Your task to perform on an android device: toggle sleep mode Image 0: 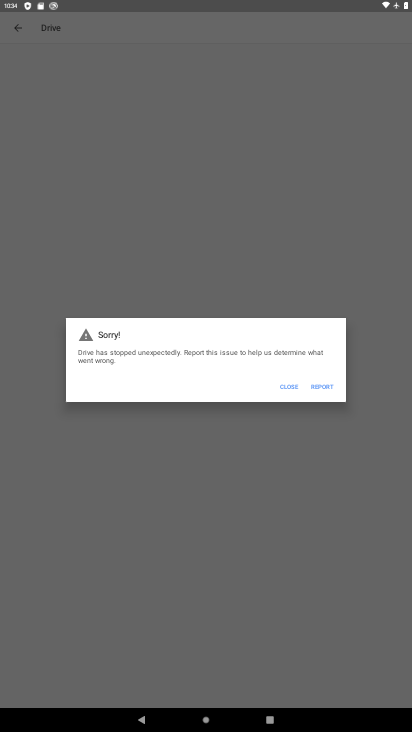
Step 0: press back button
Your task to perform on an android device: toggle sleep mode Image 1: 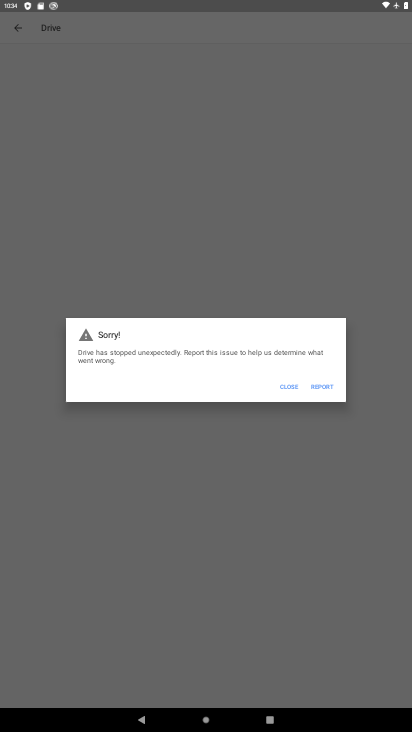
Step 1: press home button
Your task to perform on an android device: toggle sleep mode Image 2: 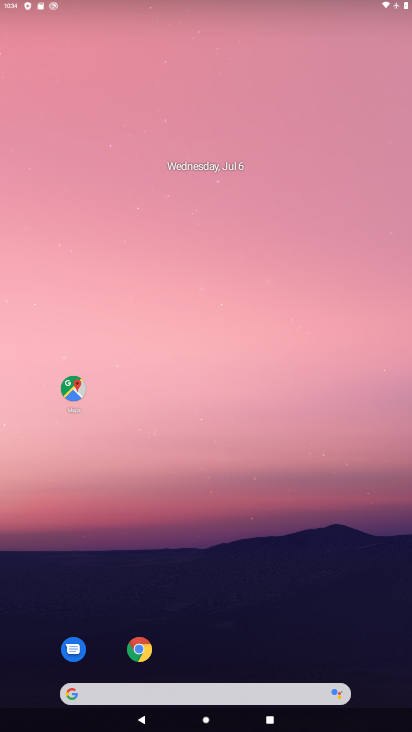
Step 2: drag from (384, 713) to (254, 45)
Your task to perform on an android device: toggle sleep mode Image 3: 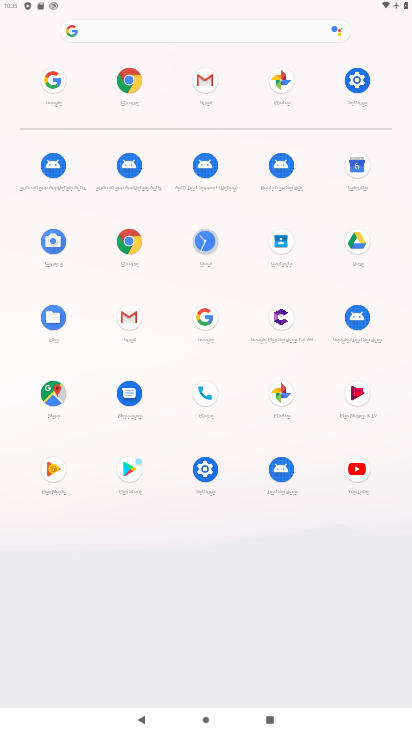
Step 3: click (349, 78)
Your task to perform on an android device: toggle sleep mode Image 4: 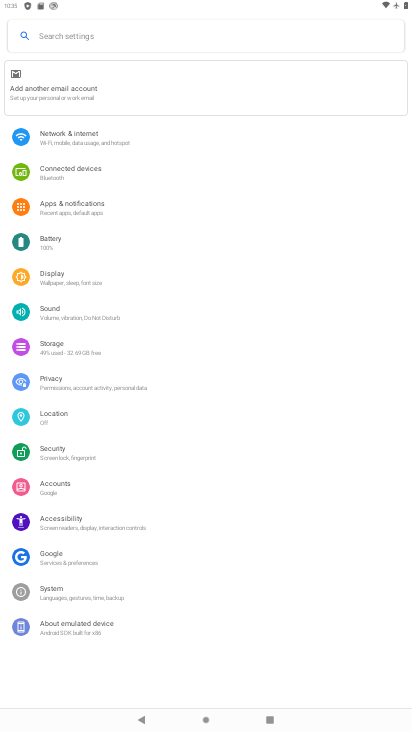
Step 4: click (77, 273)
Your task to perform on an android device: toggle sleep mode Image 5: 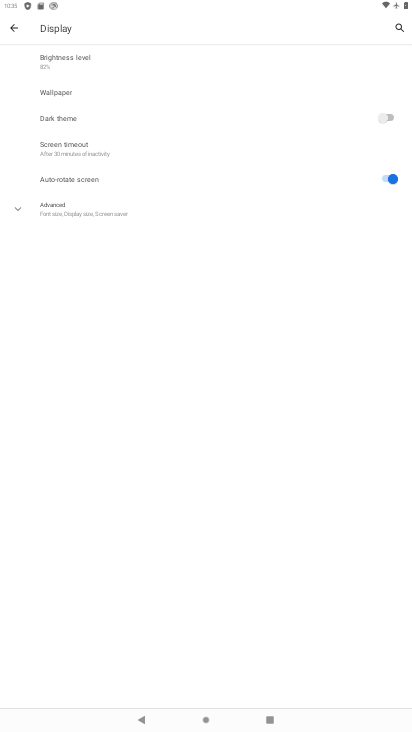
Step 5: click (73, 137)
Your task to perform on an android device: toggle sleep mode Image 6: 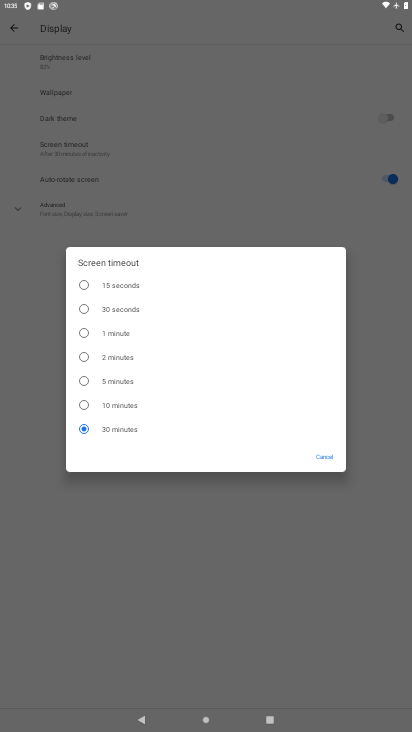
Step 6: click (83, 401)
Your task to perform on an android device: toggle sleep mode Image 7: 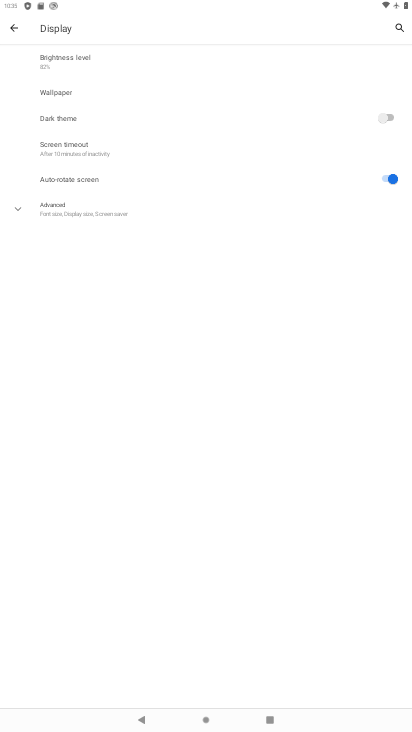
Step 7: task complete